Your task to perform on an android device: Clear the cart on amazon. Add acer predator to the cart on amazon, then select checkout. Image 0: 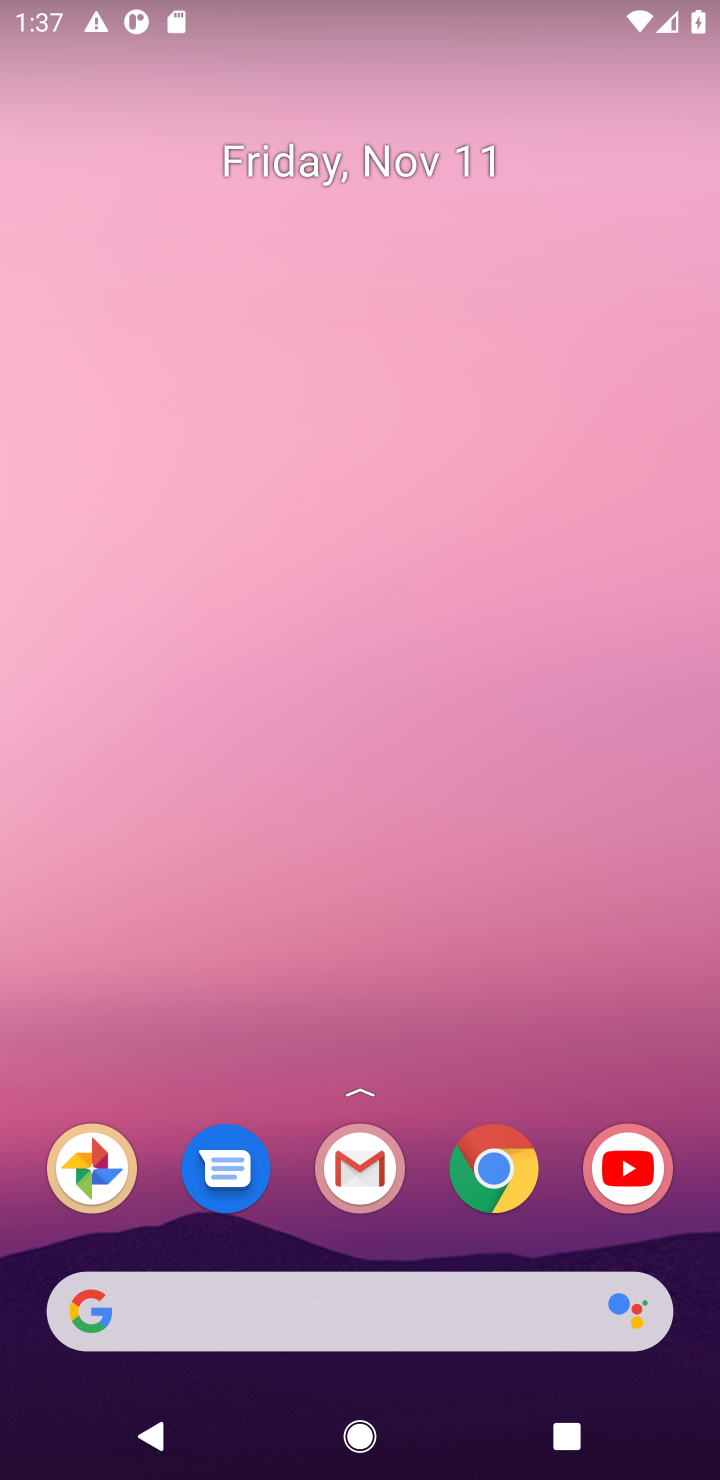
Step 0: click (504, 1166)
Your task to perform on an android device: Clear the cart on amazon. Add acer predator to the cart on amazon, then select checkout. Image 1: 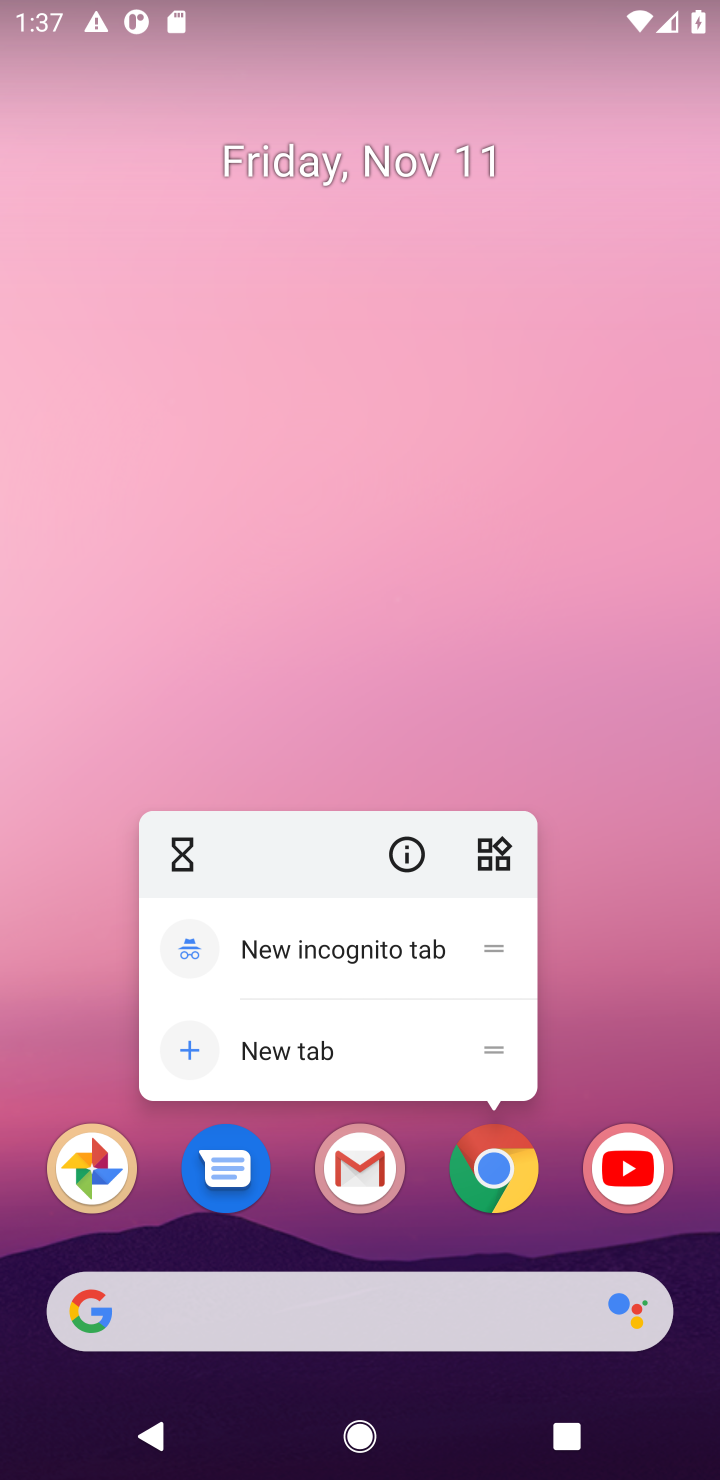
Step 1: click (493, 1175)
Your task to perform on an android device: Clear the cart on amazon. Add acer predator to the cart on amazon, then select checkout. Image 2: 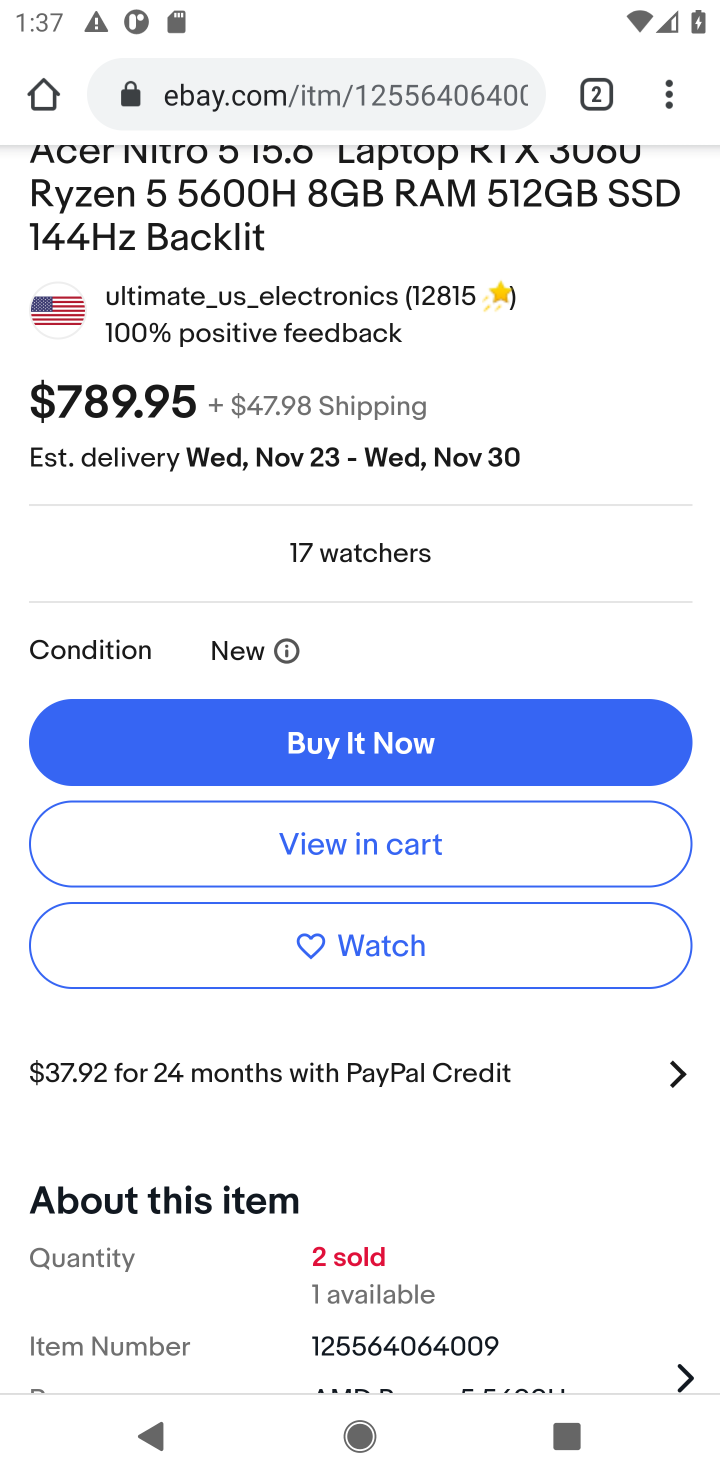
Step 2: click (321, 82)
Your task to perform on an android device: Clear the cart on amazon. Add acer predator to the cart on amazon, then select checkout. Image 3: 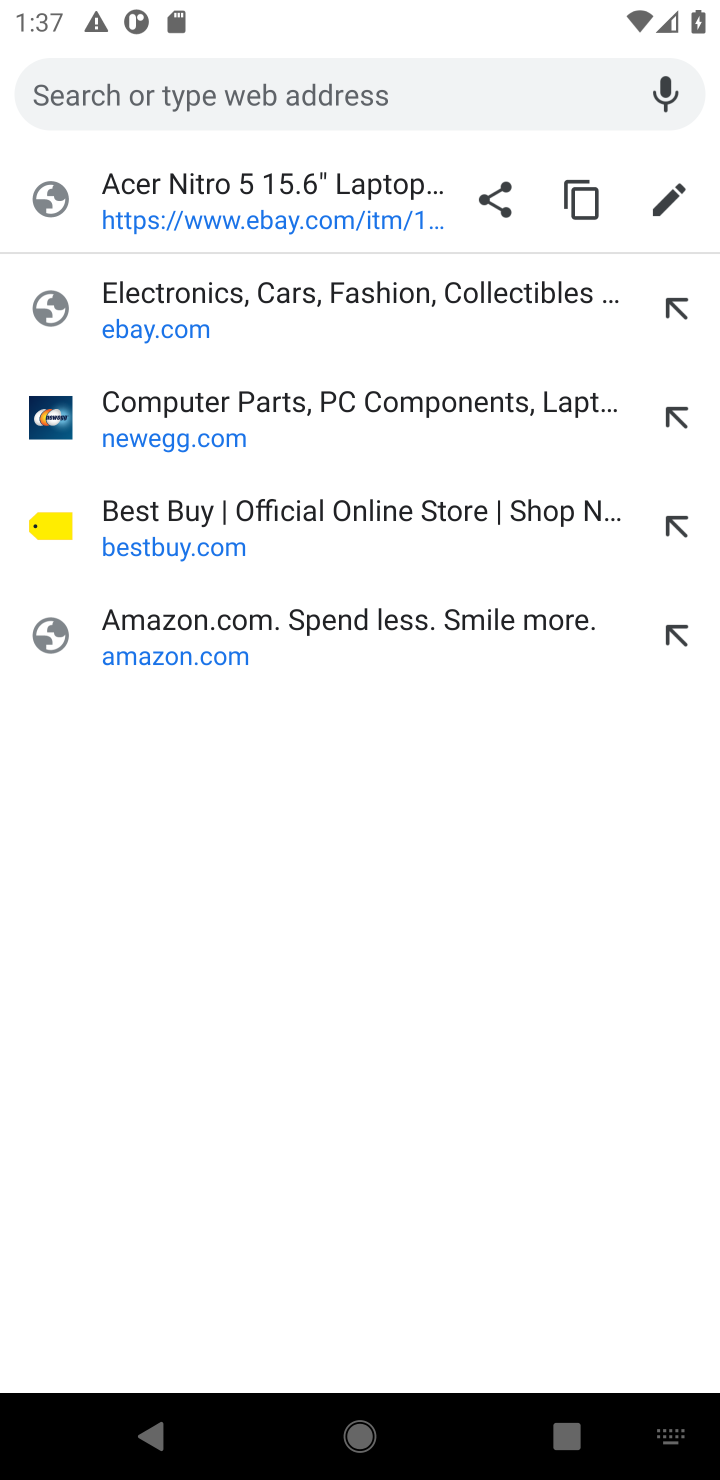
Step 3: click (140, 630)
Your task to perform on an android device: Clear the cart on amazon. Add acer predator to the cart on amazon, then select checkout. Image 4: 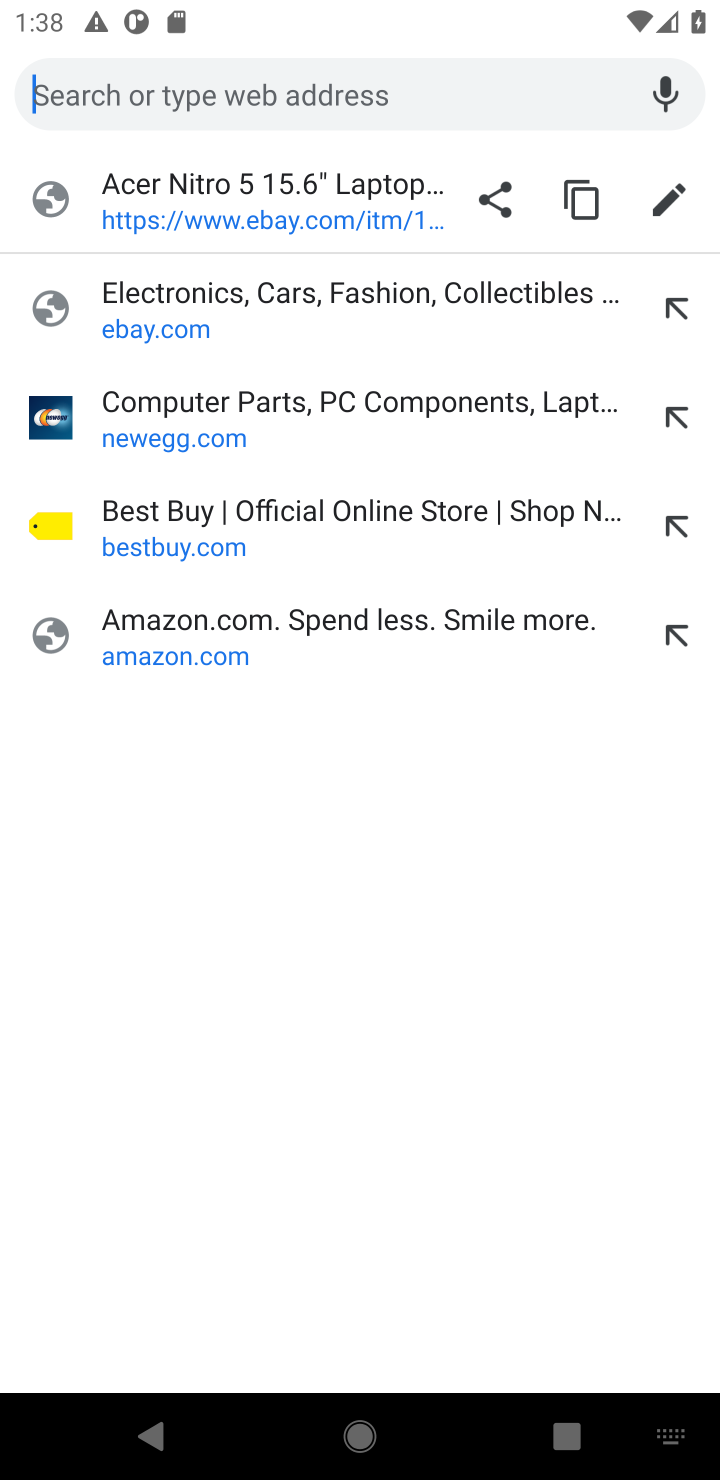
Step 4: click (179, 625)
Your task to perform on an android device: Clear the cart on amazon. Add acer predator to the cart on amazon, then select checkout. Image 5: 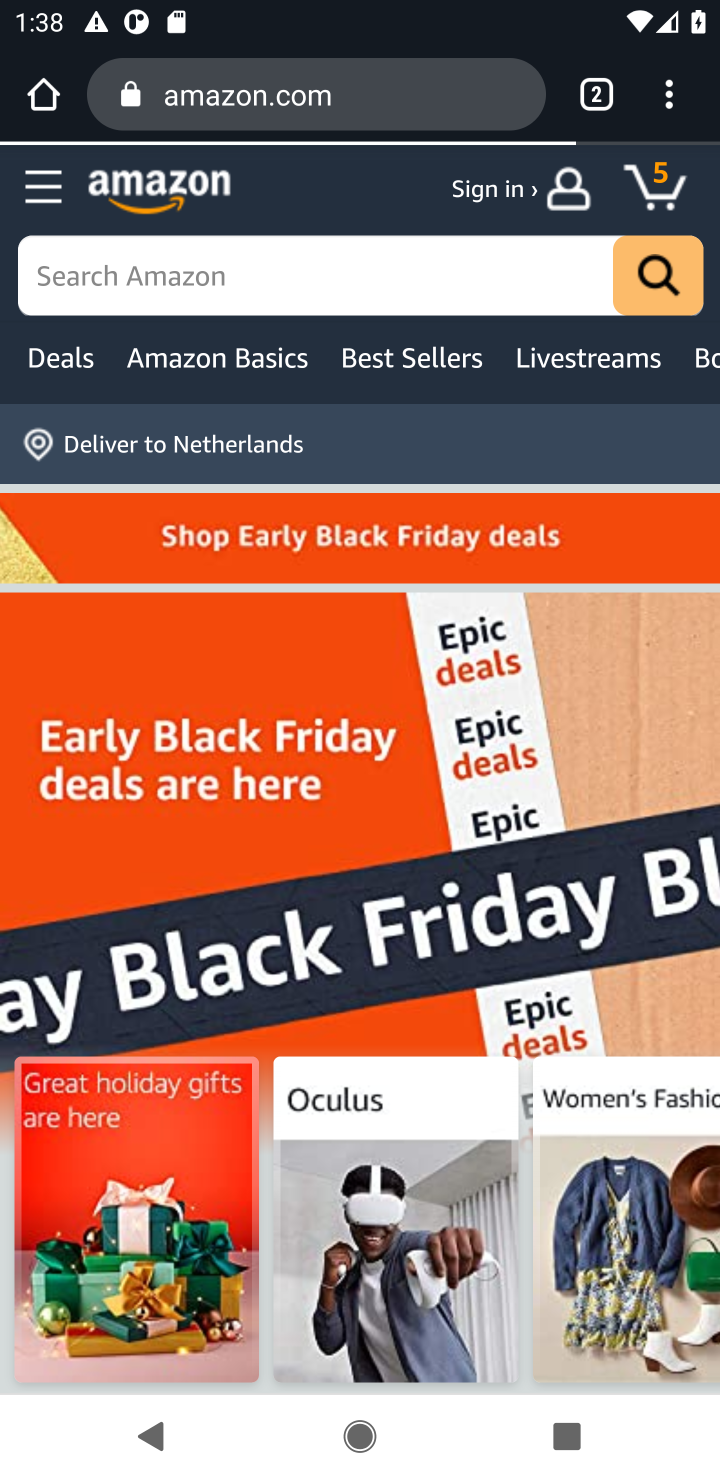
Step 5: click (643, 188)
Your task to perform on an android device: Clear the cart on amazon. Add acer predator to the cart on amazon, then select checkout. Image 6: 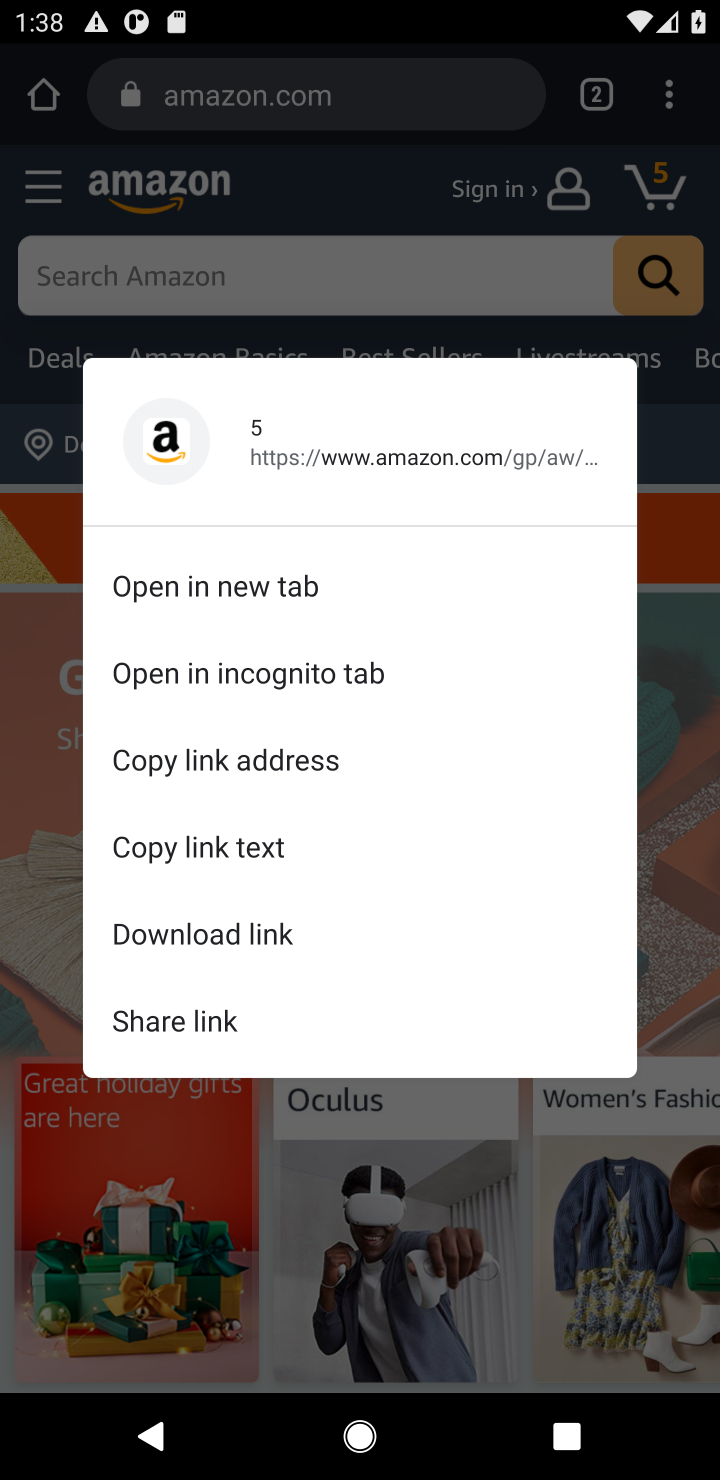
Step 6: click (662, 179)
Your task to perform on an android device: Clear the cart on amazon. Add acer predator to the cart on amazon, then select checkout. Image 7: 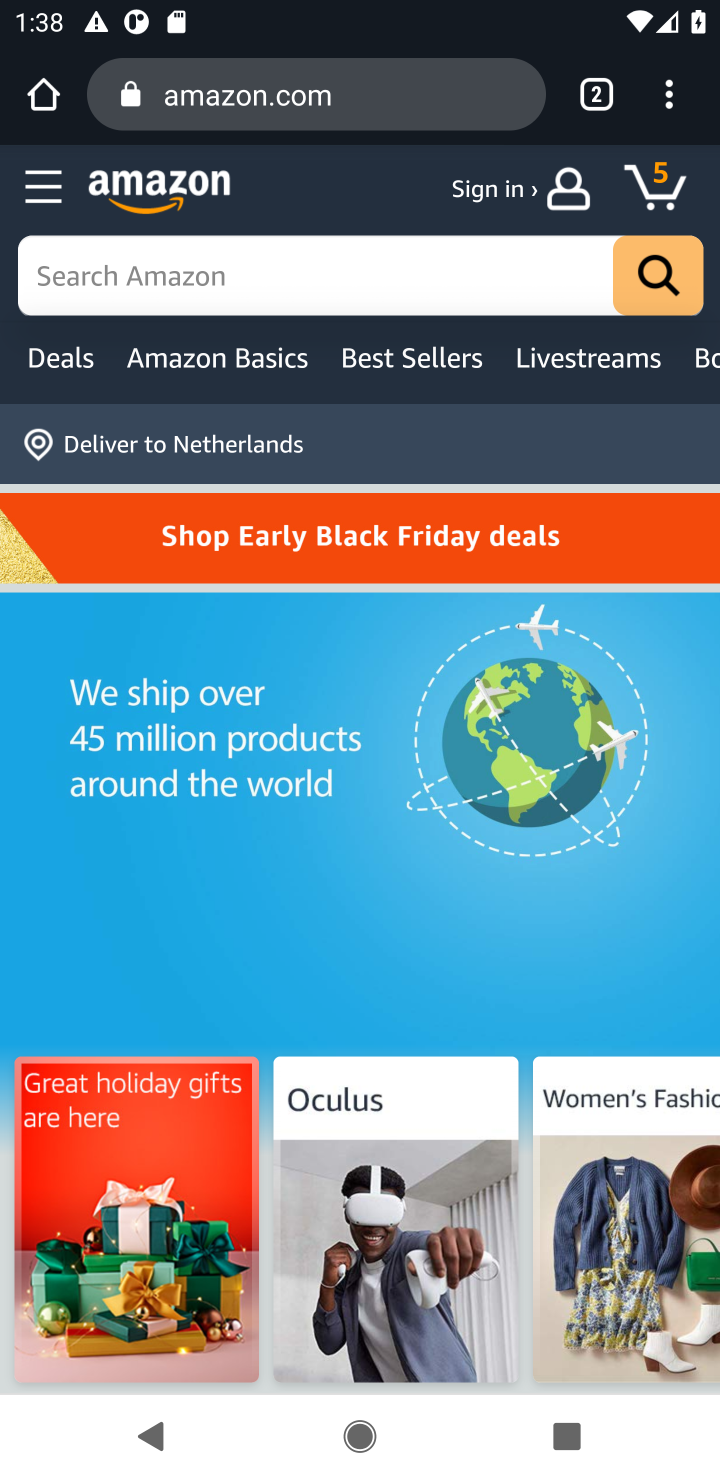
Step 7: click (657, 190)
Your task to perform on an android device: Clear the cart on amazon. Add acer predator to the cart on amazon, then select checkout. Image 8: 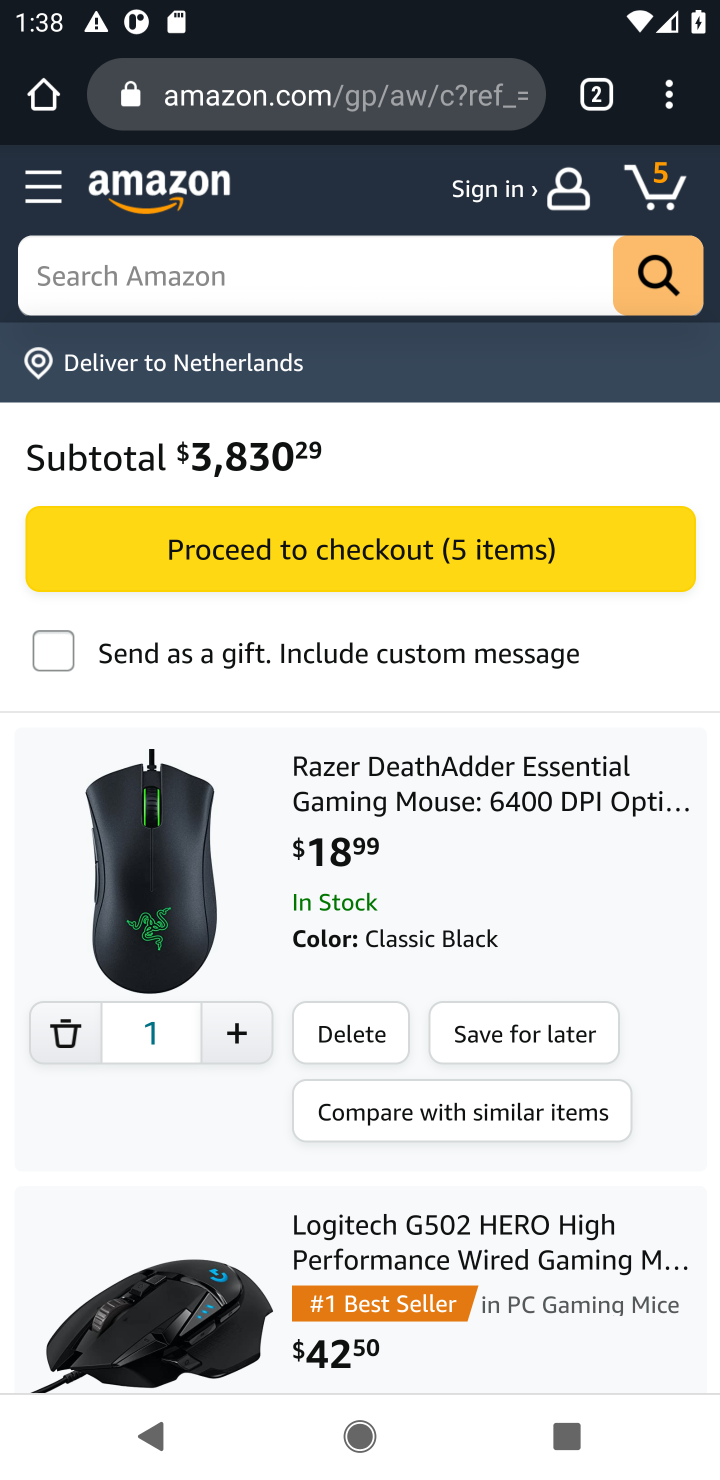
Step 8: click (341, 1027)
Your task to perform on an android device: Clear the cart on amazon. Add acer predator to the cart on amazon, then select checkout. Image 9: 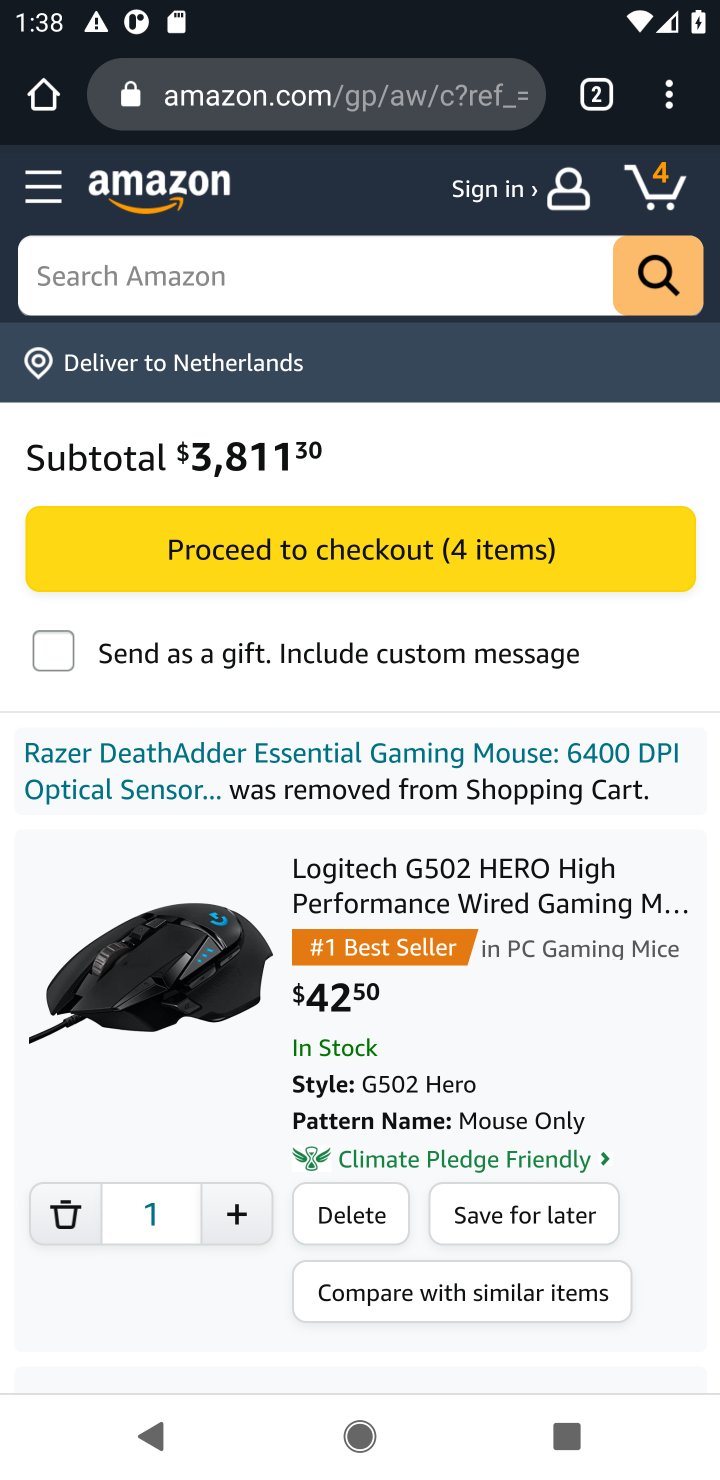
Step 9: click (349, 1202)
Your task to perform on an android device: Clear the cart on amazon. Add acer predator to the cart on amazon, then select checkout. Image 10: 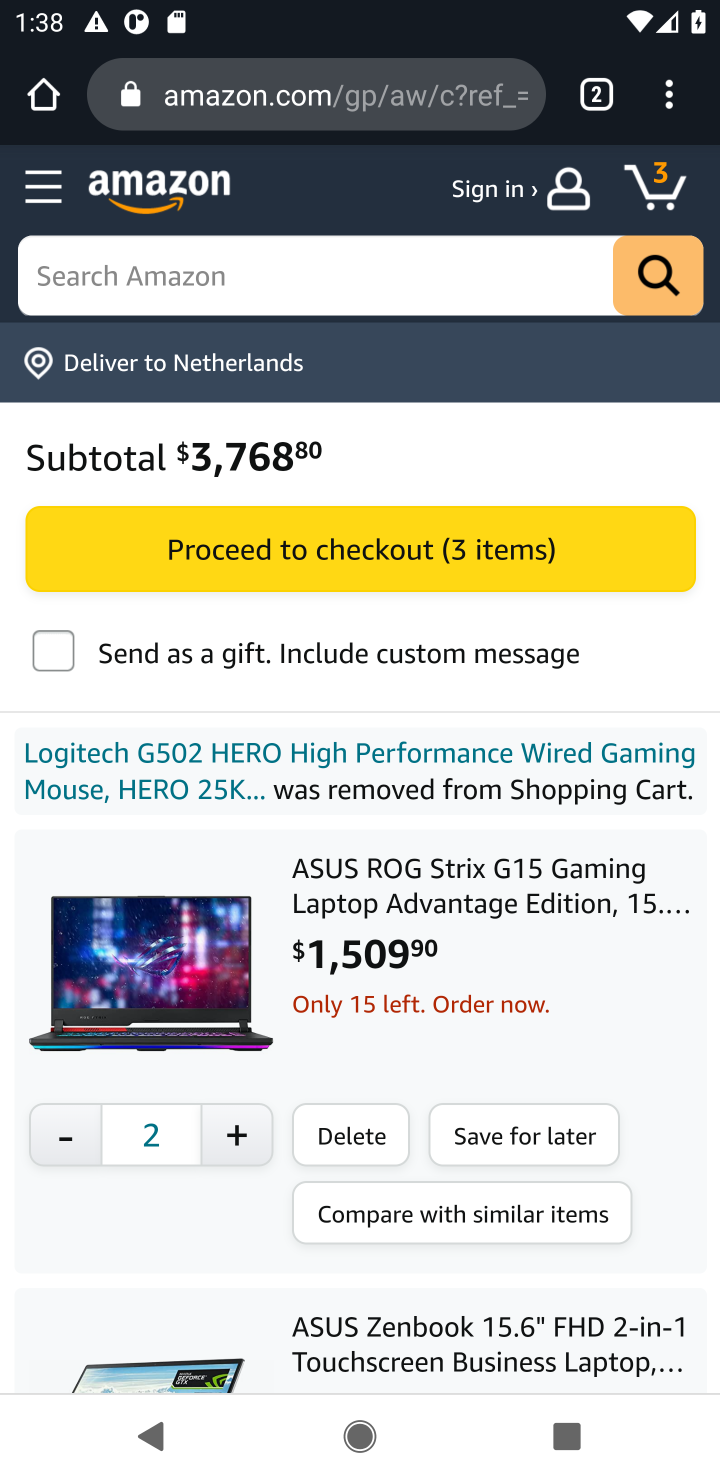
Step 10: click (353, 1126)
Your task to perform on an android device: Clear the cart on amazon. Add acer predator to the cart on amazon, then select checkout. Image 11: 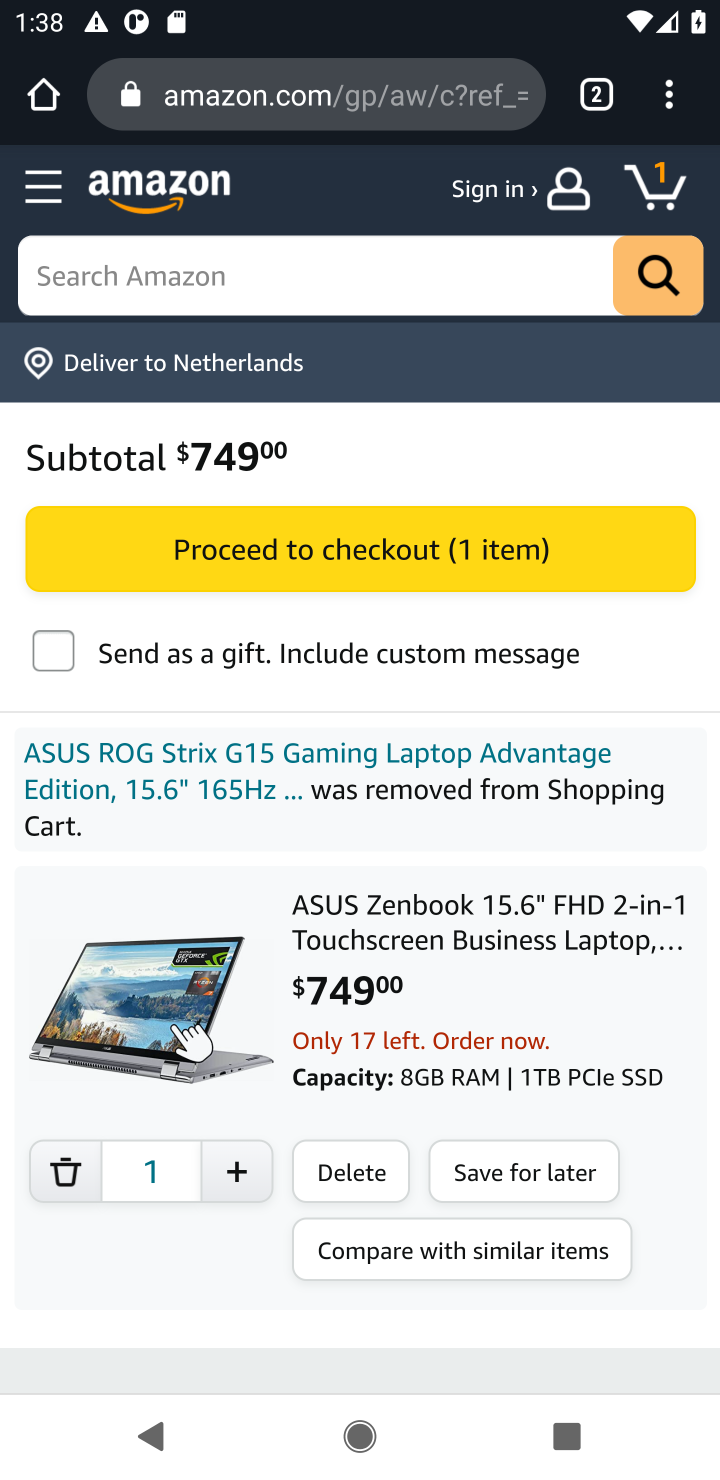
Step 11: click (342, 1169)
Your task to perform on an android device: Clear the cart on amazon. Add acer predator to the cart on amazon, then select checkout. Image 12: 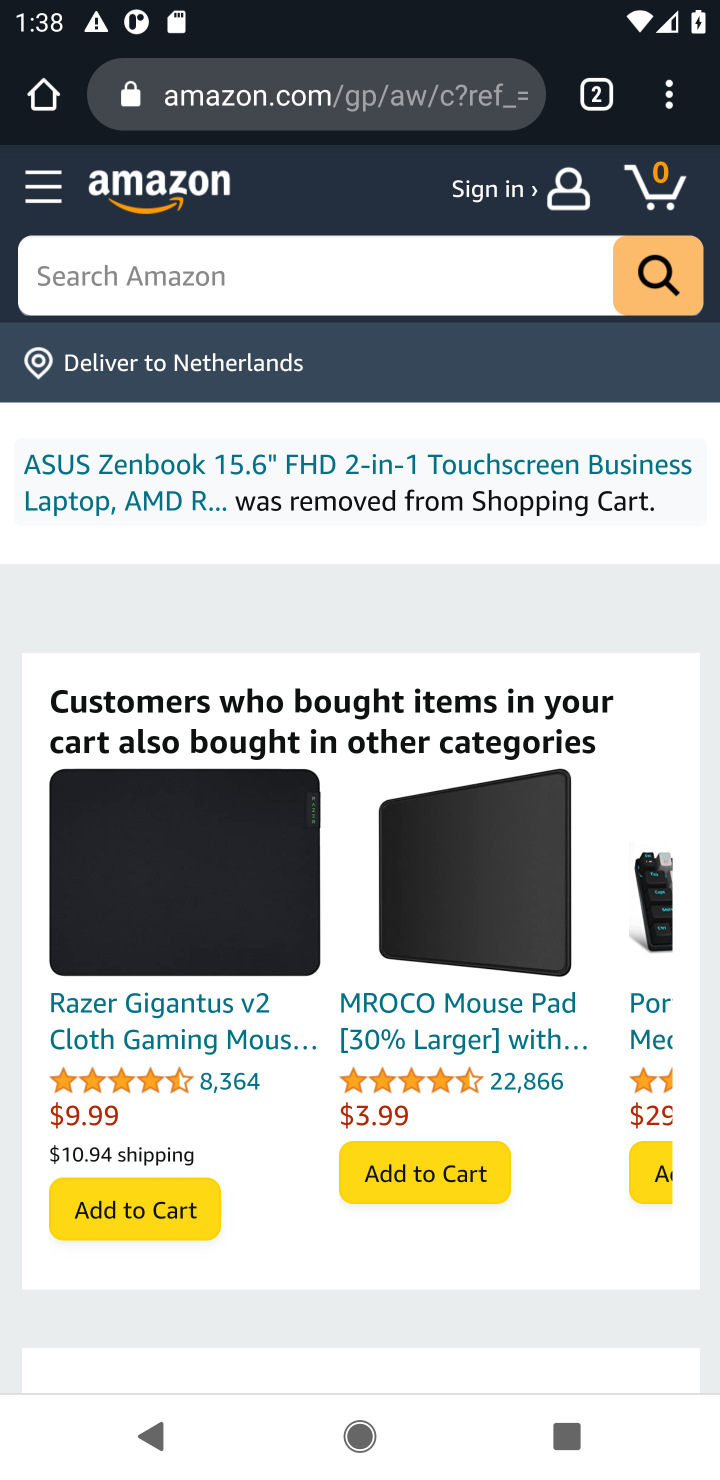
Step 12: click (150, 272)
Your task to perform on an android device: Clear the cart on amazon. Add acer predator to the cart on amazon, then select checkout. Image 13: 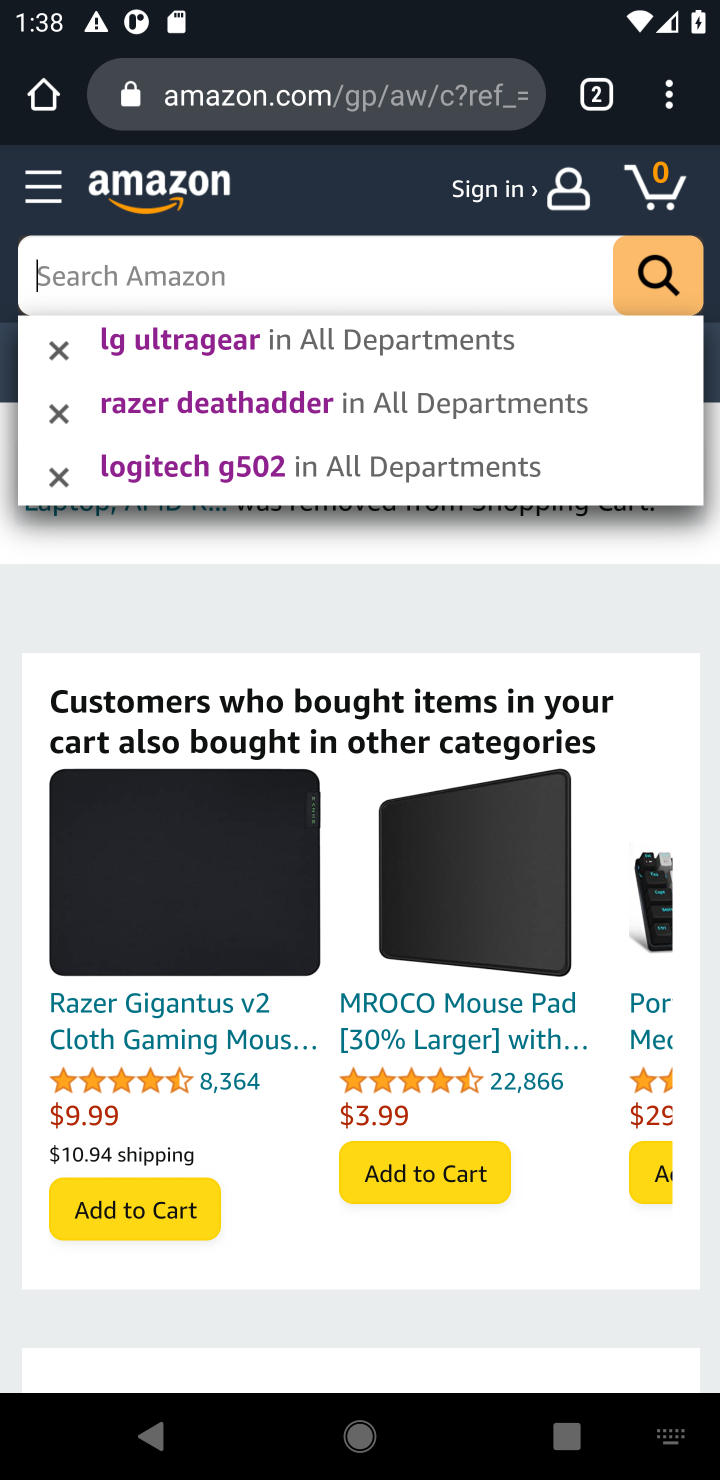
Step 13: type "acer predator"
Your task to perform on an android device: Clear the cart on amazon. Add acer predator to the cart on amazon, then select checkout. Image 14: 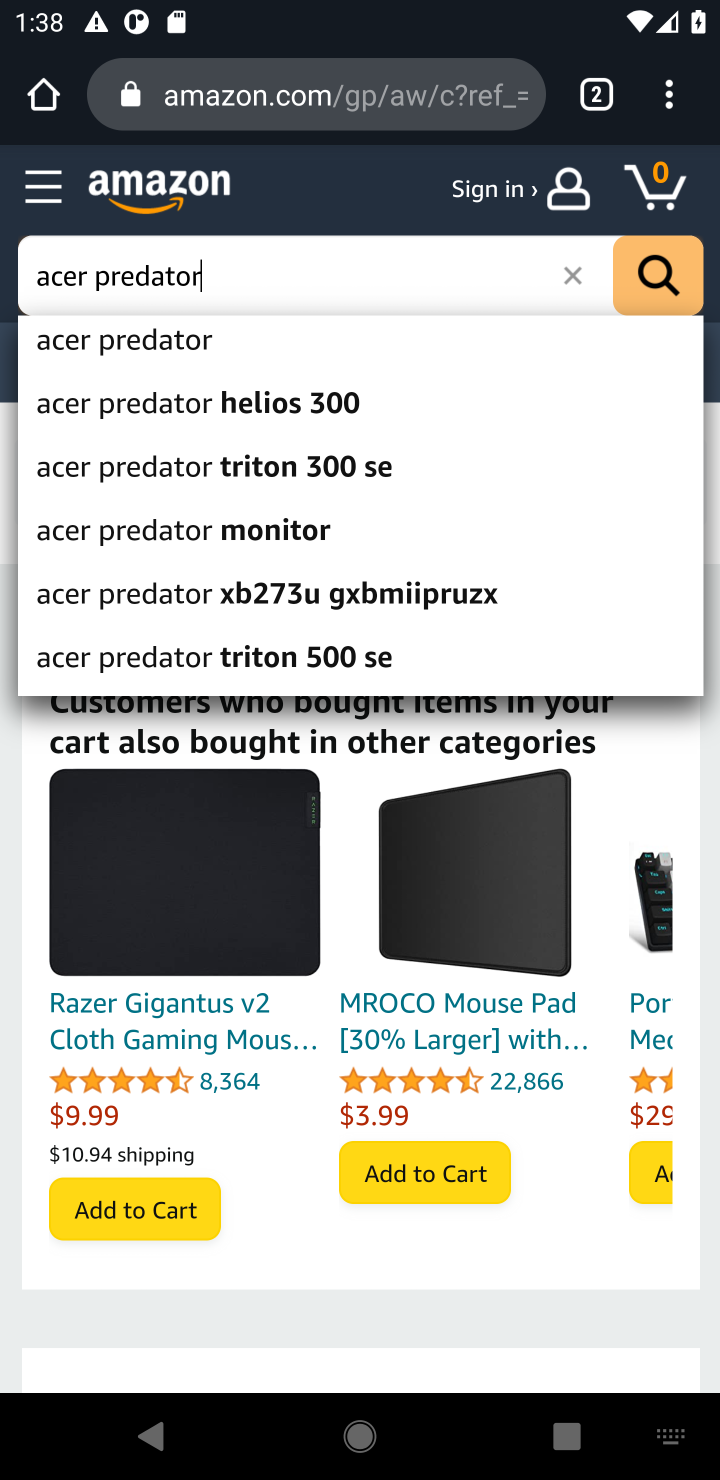
Step 14: click (154, 345)
Your task to perform on an android device: Clear the cart on amazon. Add acer predator to the cart on amazon, then select checkout. Image 15: 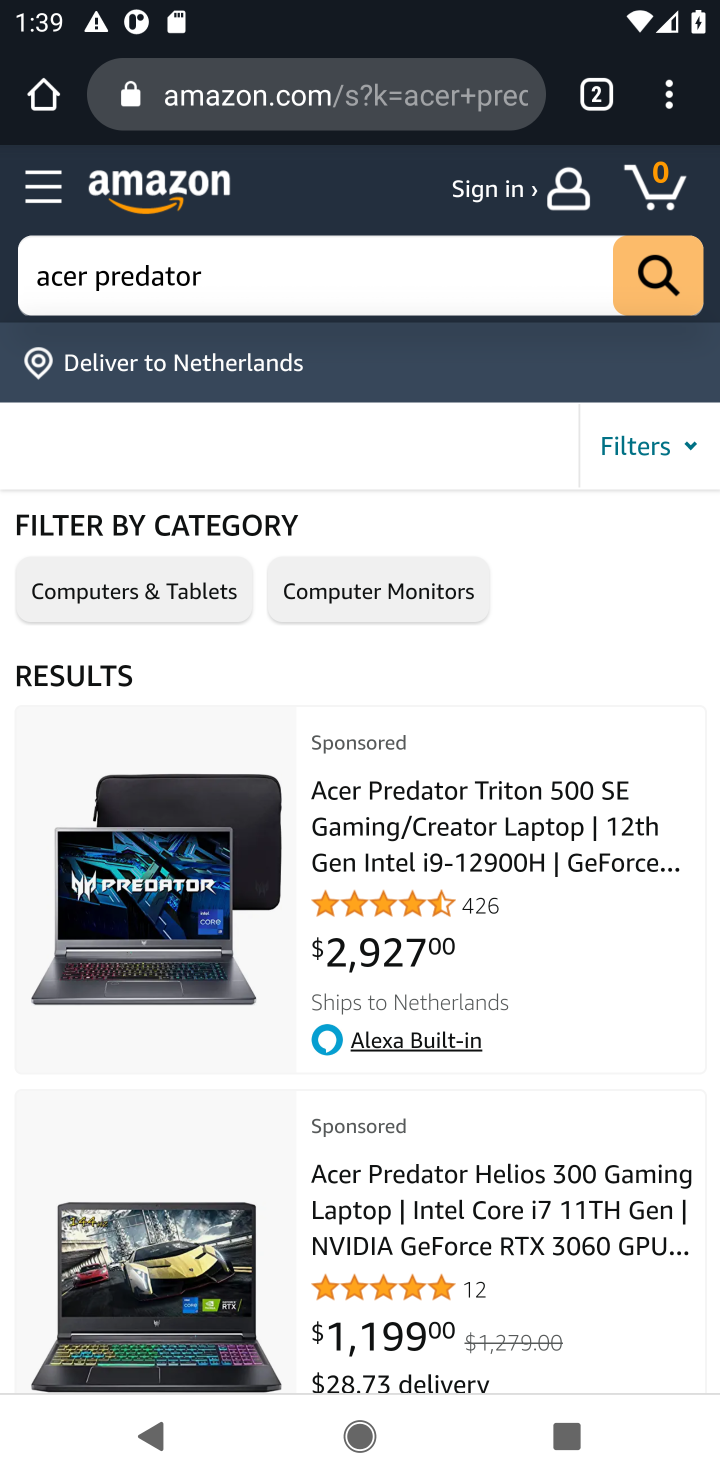
Step 15: click (157, 902)
Your task to perform on an android device: Clear the cart on amazon. Add acer predator to the cart on amazon, then select checkout. Image 16: 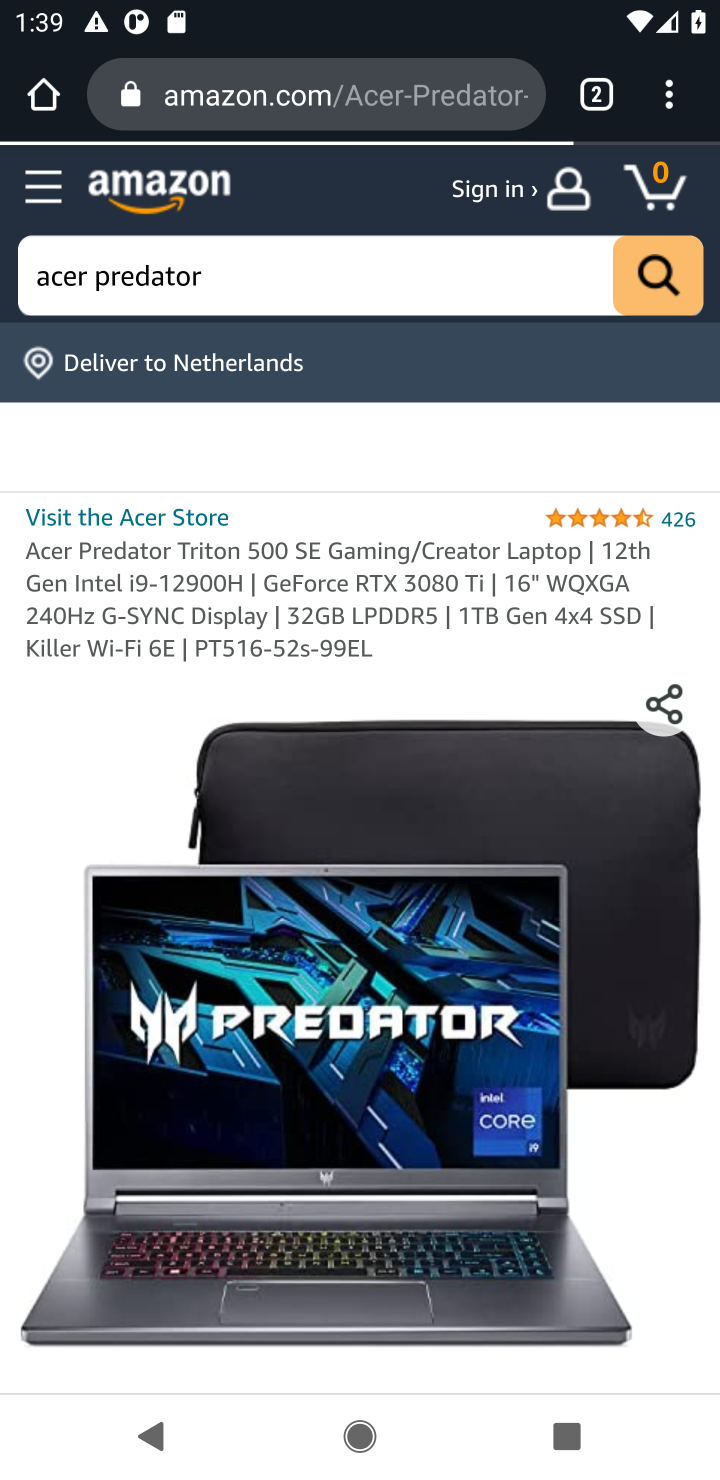
Step 16: drag from (378, 1019) to (329, 554)
Your task to perform on an android device: Clear the cart on amazon. Add acer predator to the cart on amazon, then select checkout. Image 17: 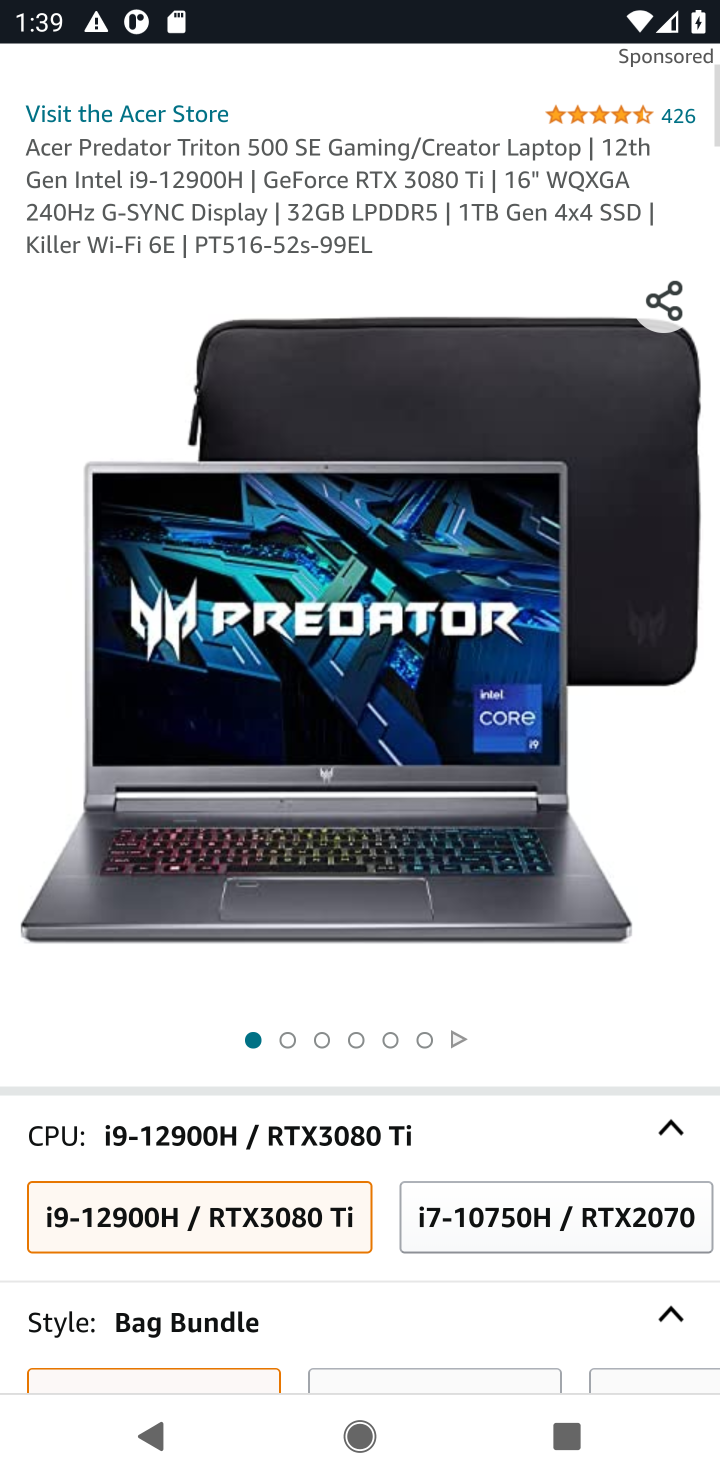
Step 17: drag from (395, 626) to (359, 362)
Your task to perform on an android device: Clear the cart on amazon. Add acer predator to the cart on amazon, then select checkout. Image 18: 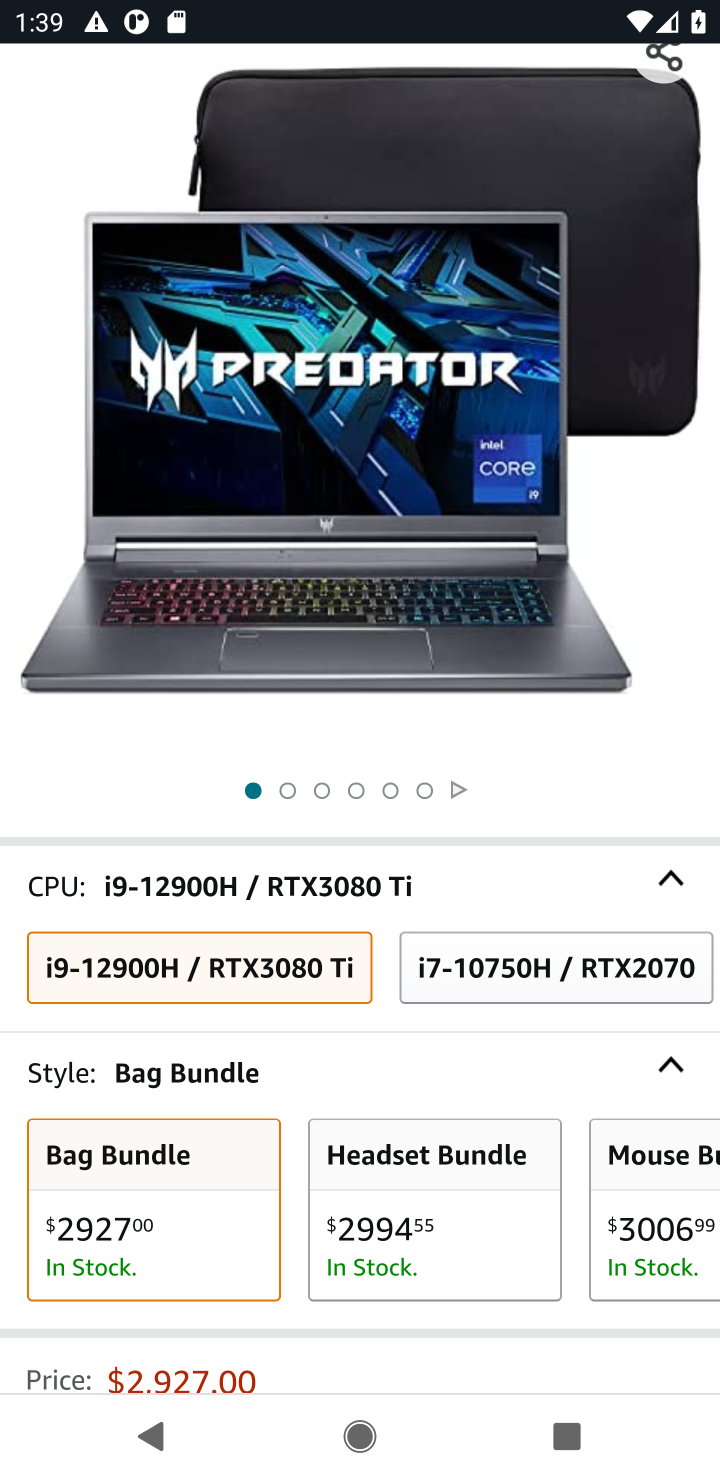
Step 18: drag from (390, 936) to (353, 458)
Your task to perform on an android device: Clear the cart on amazon. Add acer predator to the cart on amazon, then select checkout. Image 19: 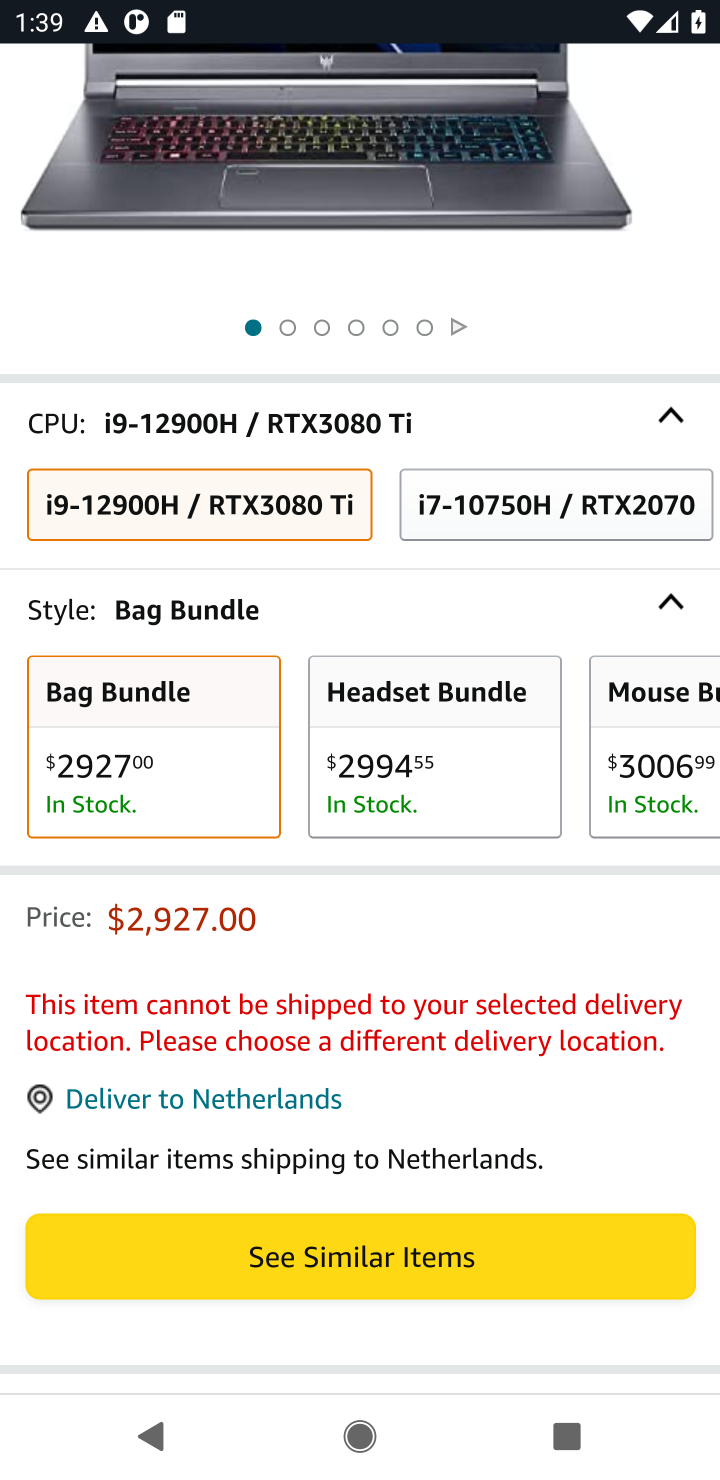
Step 19: press back button
Your task to perform on an android device: Clear the cart on amazon. Add acer predator to the cart on amazon, then select checkout. Image 20: 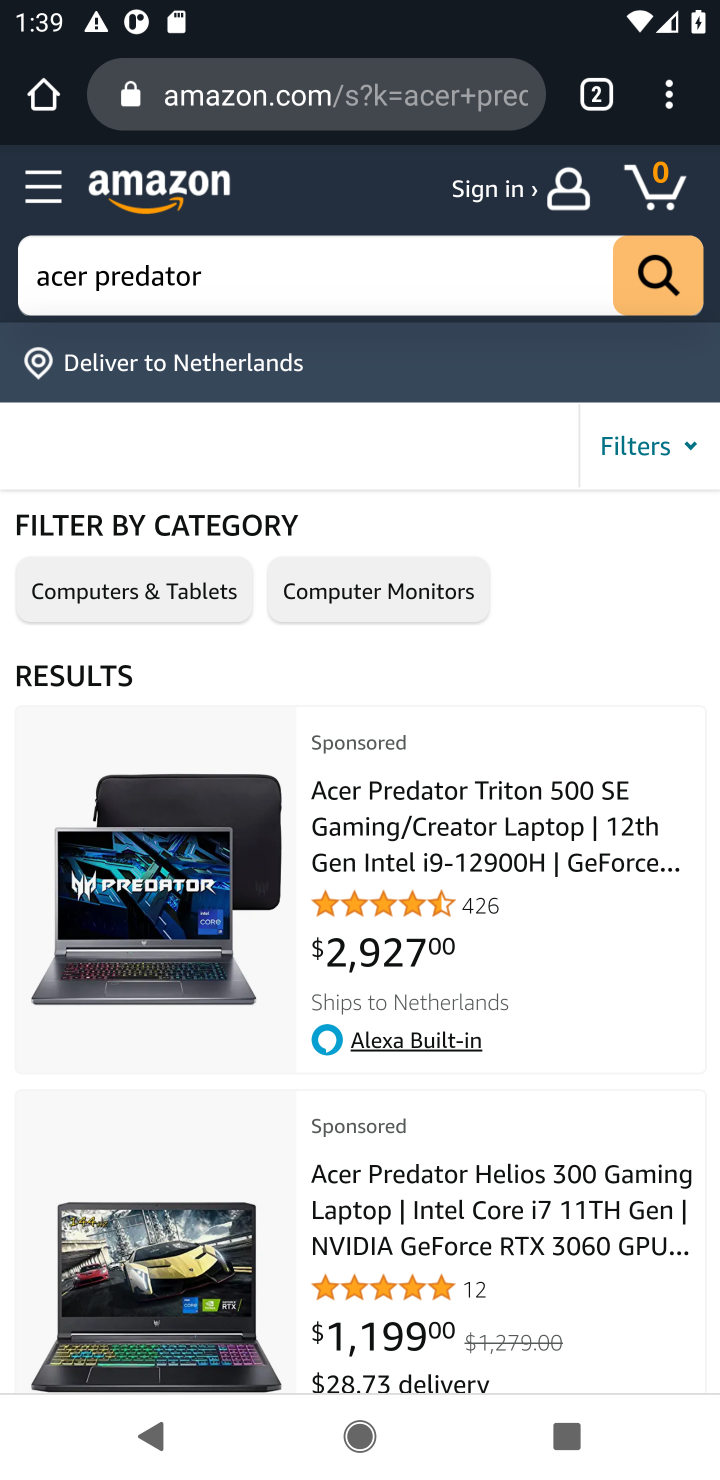
Step 20: click (165, 1269)
Your task to perform on an android device: Clear the cart on amazon. Add acer predator to the cart on amazon, then select checkout. Image 21: 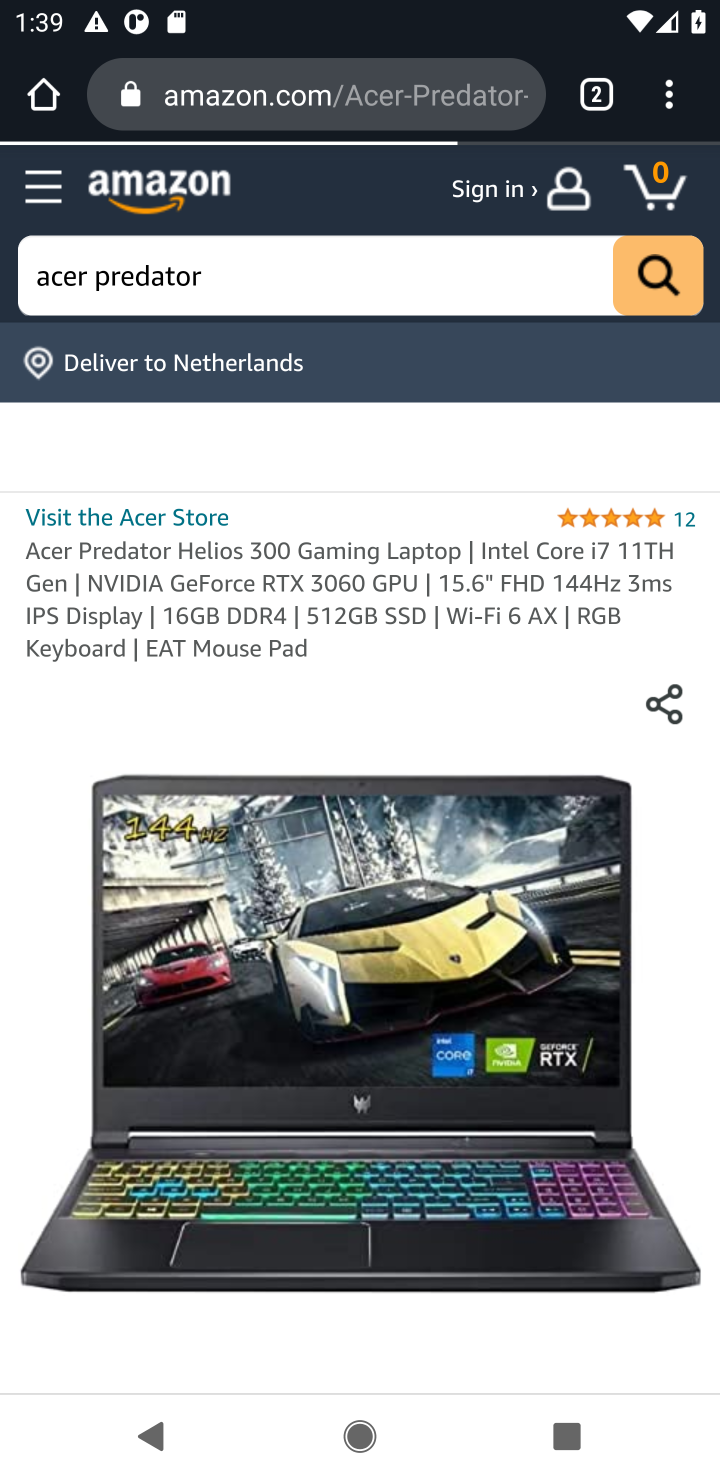
Step 21: drag from (338, 1104) to (332, 370)
Your task to perform on an android device: Clear the cart on amazon. Add acer predator to the cart on amazon, then select checkout. Image 22: 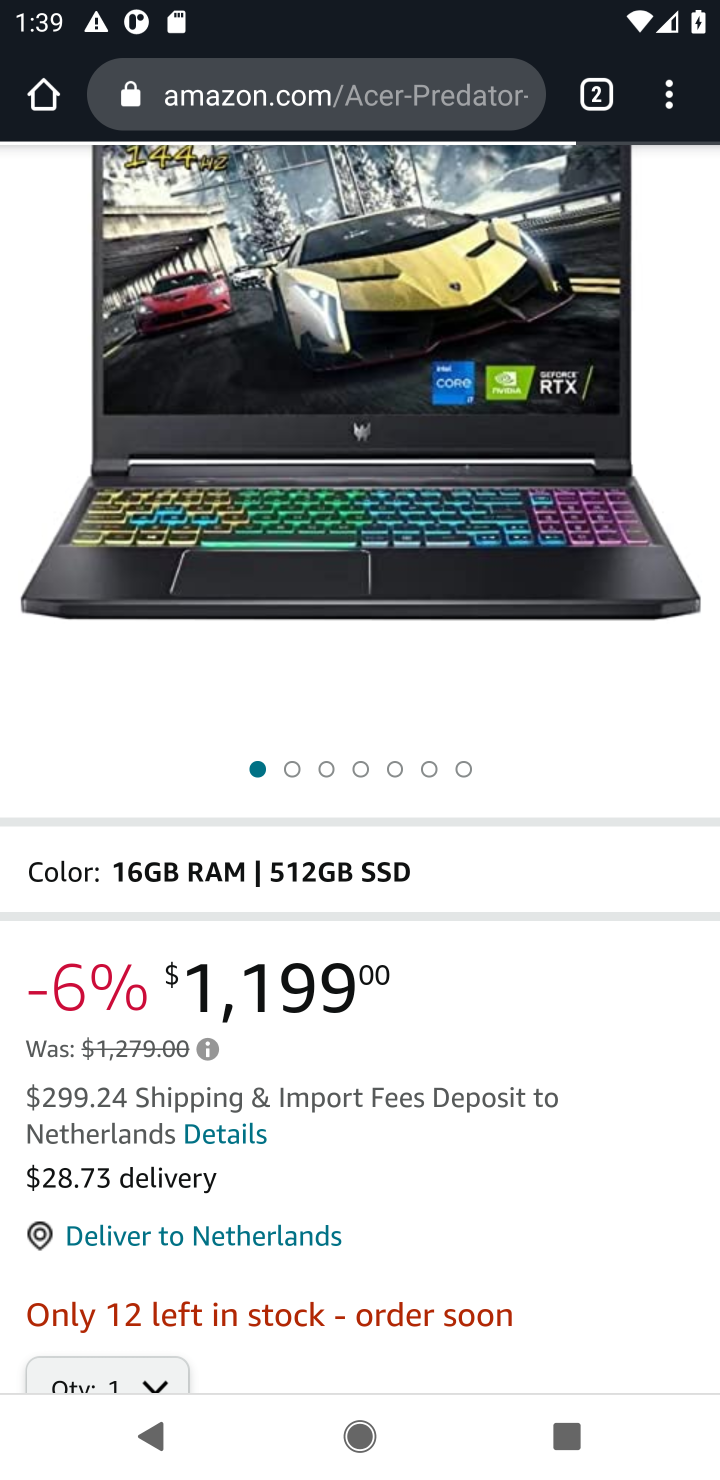
Step 22: drag from (356, 756) to (332, 348)
Your task to perform on an android device: Clear the cart on amazon. Add acer predator to the cart on amazon, then select checkout. Image 23: 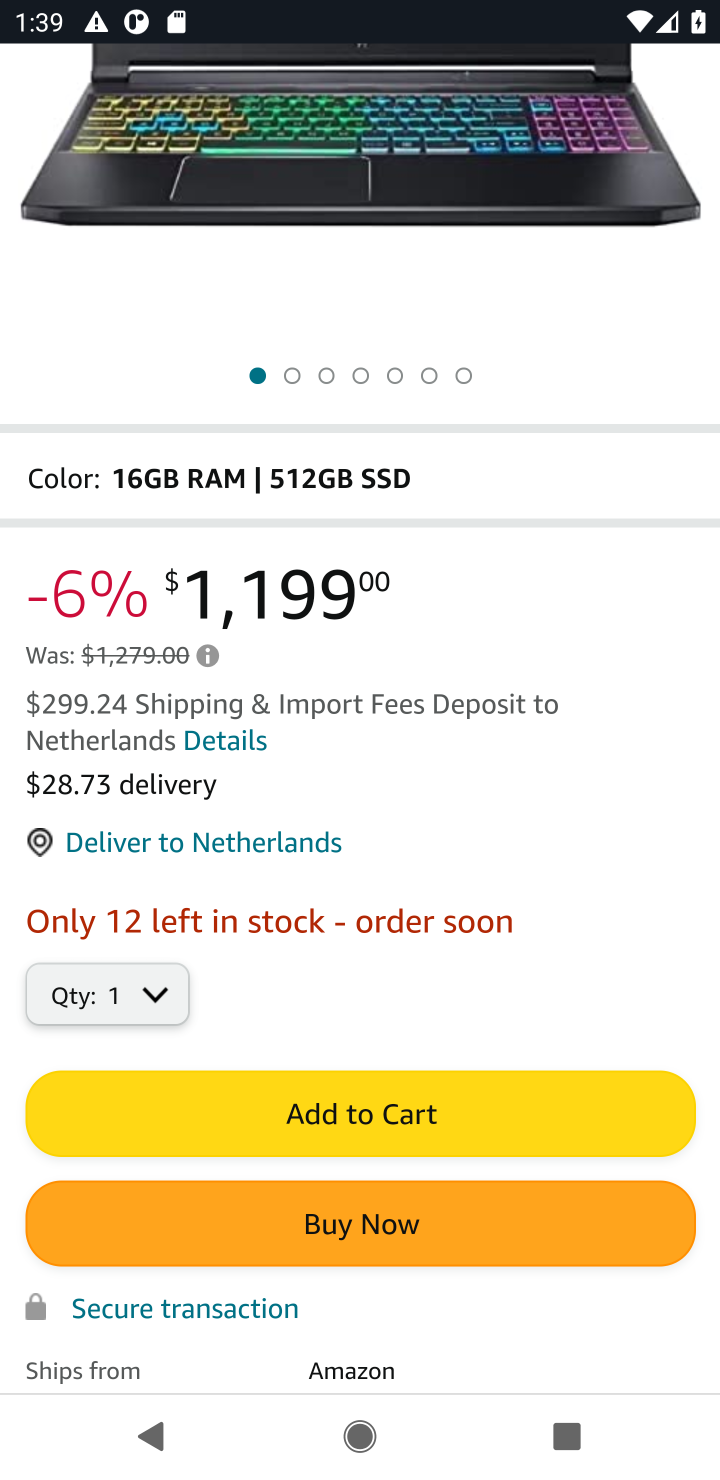
Step 23: click (341, 1108)
Your task to perform on an android device: Clear the cart on amazon. Add acer predator to the cart on amazon, then select checkout. Image 24: 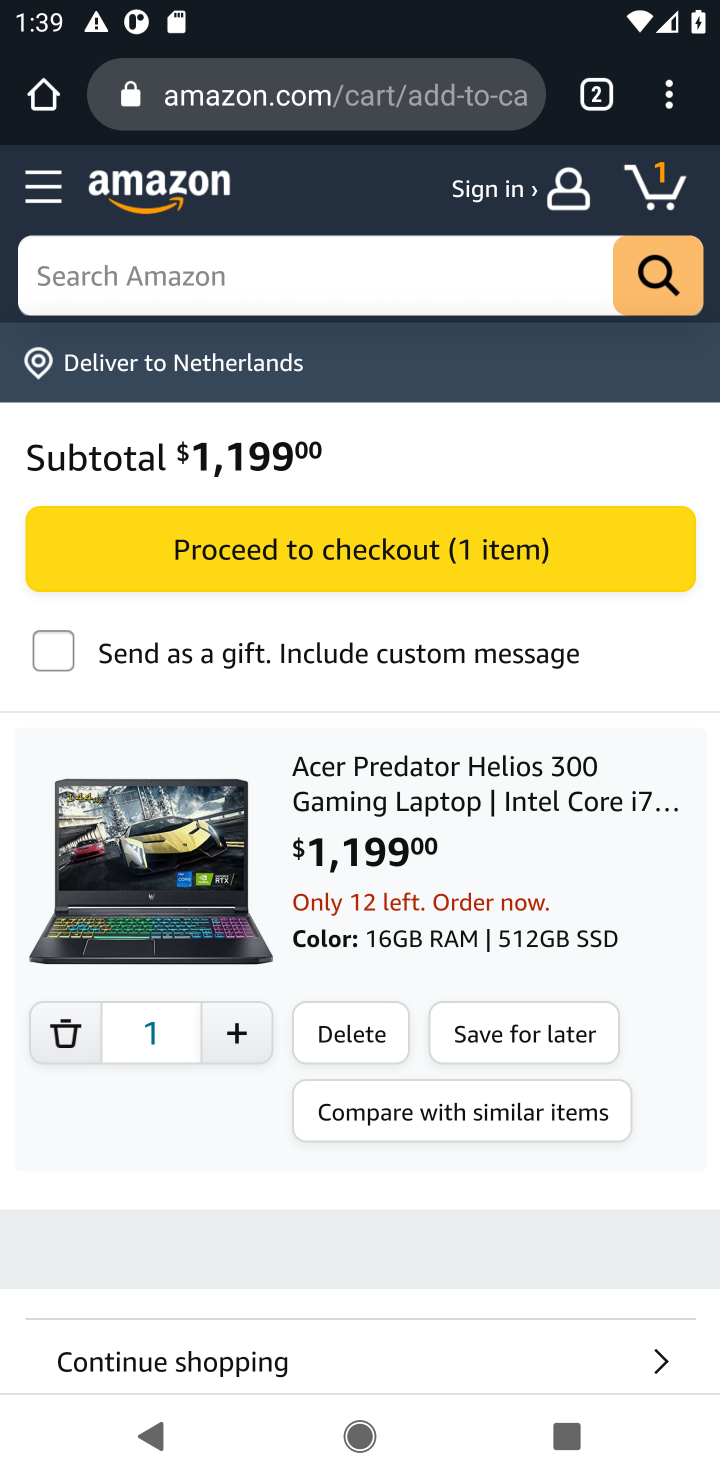
Step 24: click (298, 561)
Your task to perform on an android device: Clear the cart on amazon. Add acer predator to the cart on amazon, then select checkout. Image 25: 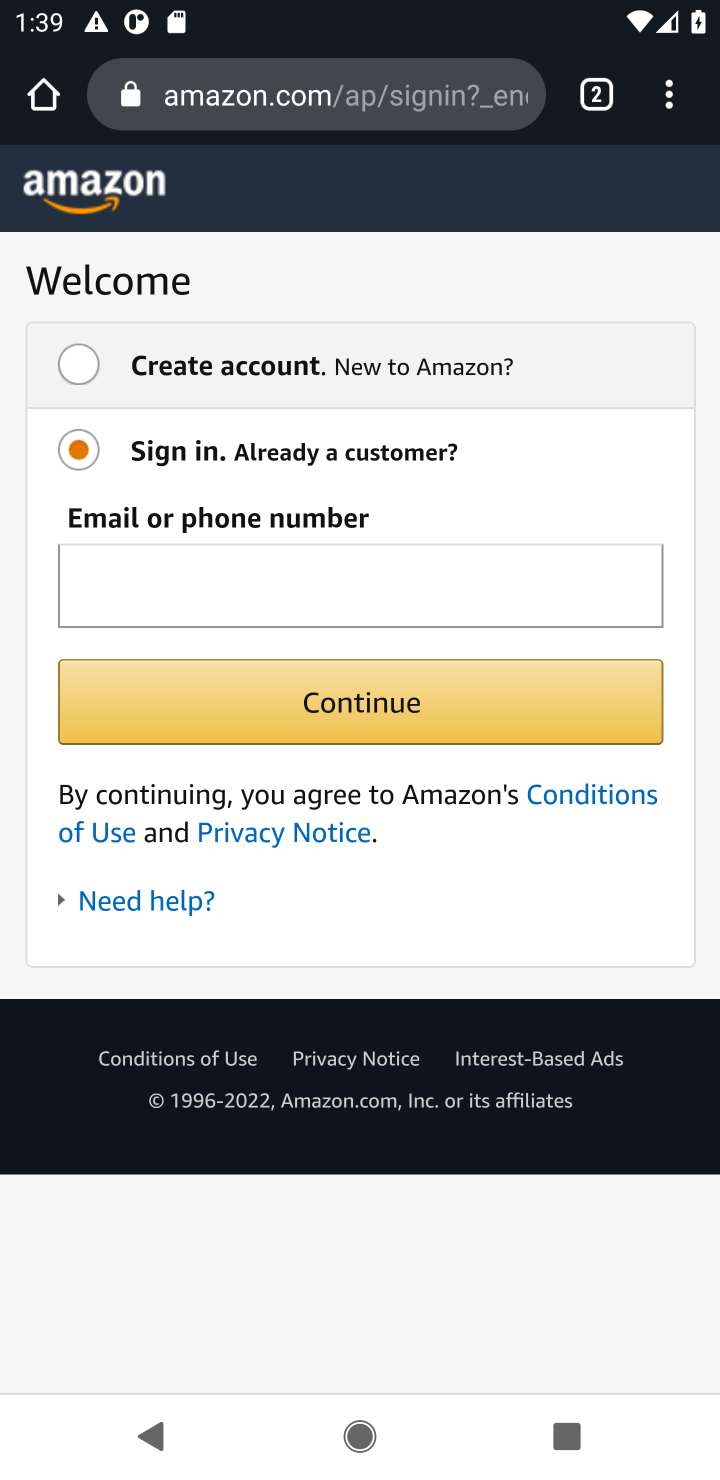
Step 25: task complete